Your task to perform on an android device: see tabs open on other devices in the chrome app Image 0: 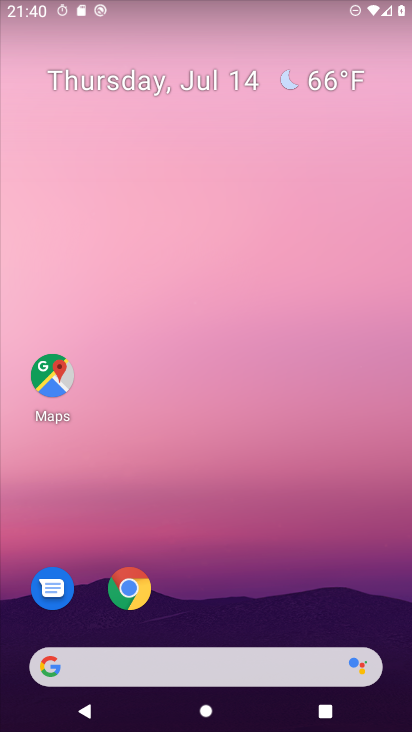
Step 0: drag from (324, 601) to (342, 115)
Your task to perform on an android device: see tabs open on other devices in the chrome app Image 1: 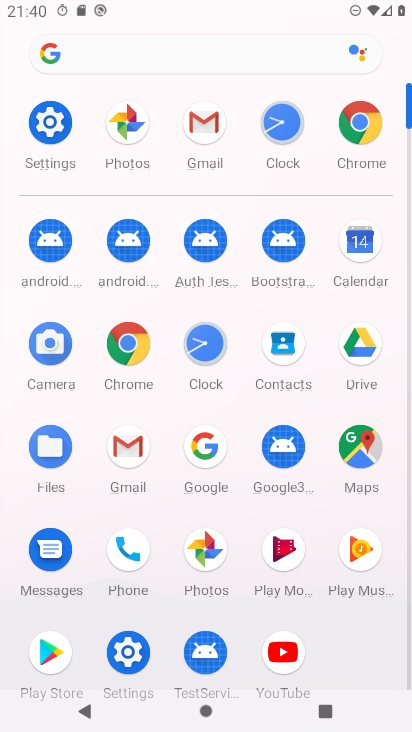
Step 1: click (366, 120)
Your task to perform on an android device: see tabs open on other devices in the chrome app Image 2: 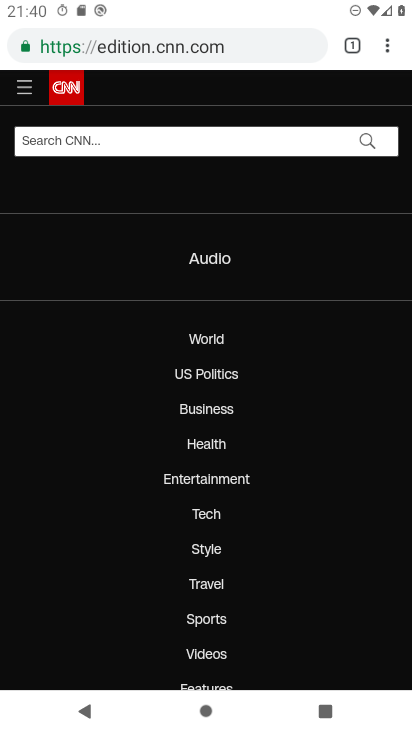
Step 2: click (391, 51)
Your task to perform on an android device: see tabs open on other devices in the chrome app Image 3: 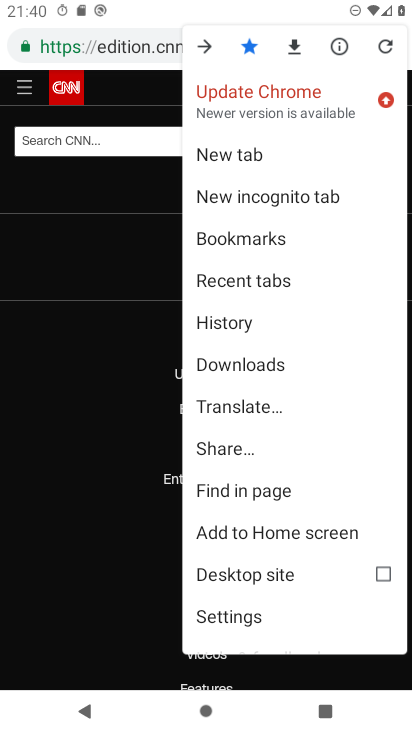
Step 3: click (277, 273)
Your task to perform on an android device: see tabs open on other devices in the chrome app Image 4: 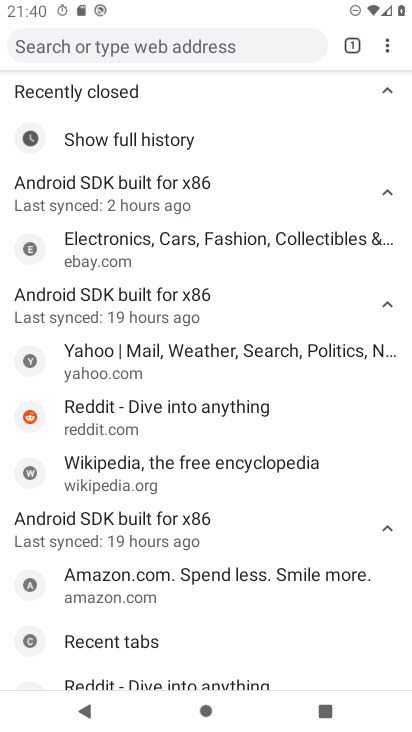
Step 4: click (355, 51)
Your task to perform on an android device: see tabs open on other devices in the chrome app Image 5: 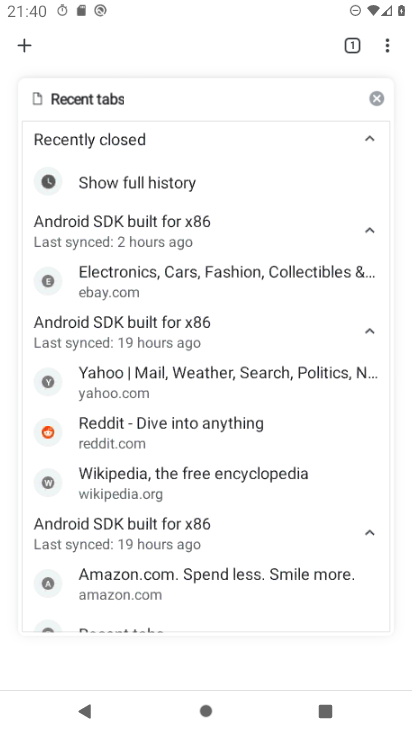
Step 5: task complete